Your task to perform on an android device: Is it going to rain this weekend? Image 0: 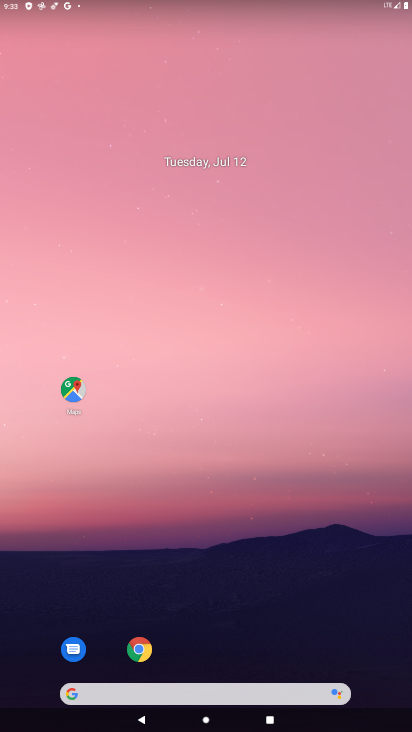
Step 0: drag from (334, 640) to (262, 181)
Your task to perform on an android device: Is it going to rain this weekend? Image 1: 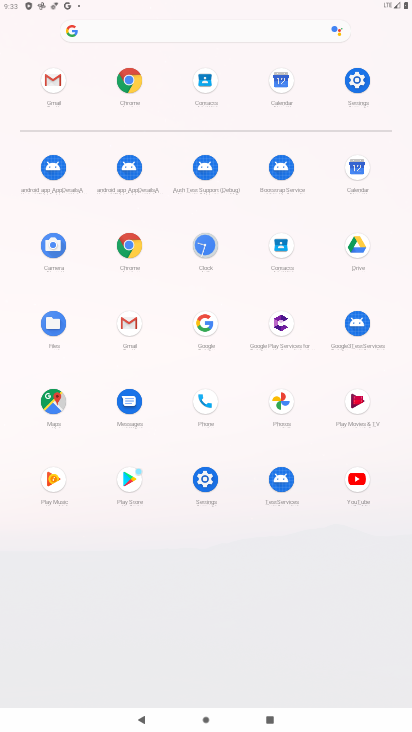
Step 1: click (208, 19)
Your task to perform on an android device: Is it going to rain this weekend? Image 2: 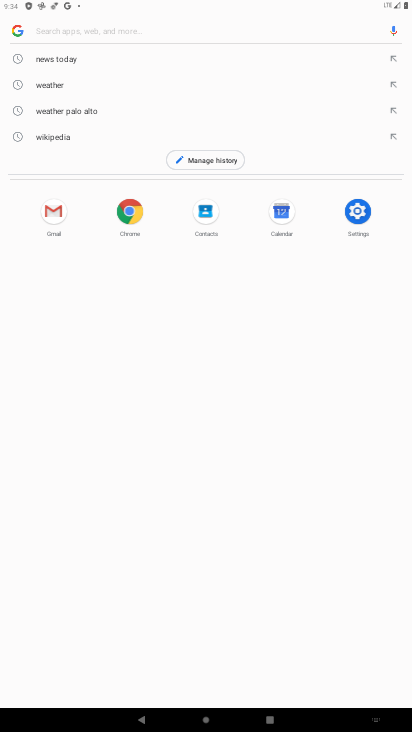
Step 2: type "rain"
Your task to perform on an android device: Is it going to rain this weekend? Image 3: 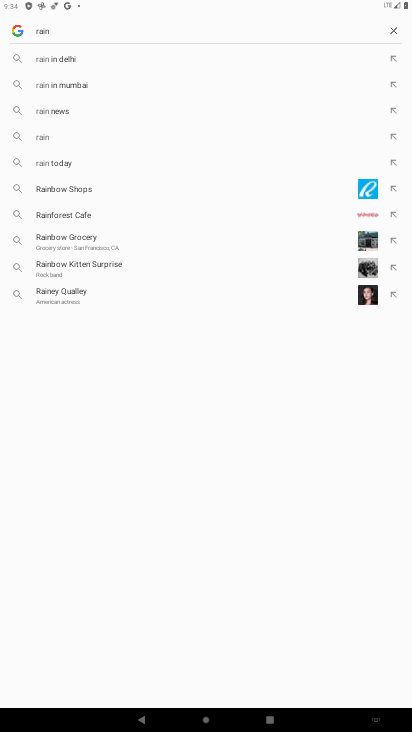
Step 3: click (162, 64)
Your task to perform on an android device: Is it going to rain this weekend? Image 4: 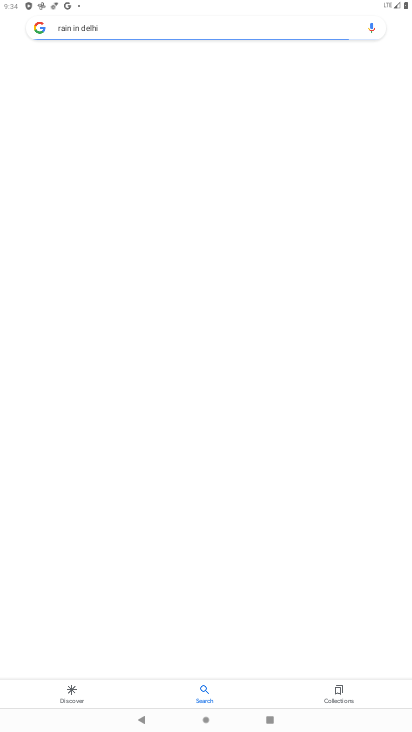
Step 4: task complete